Your task to perform on an android device: add a label to a message in the gmail app Image 0: 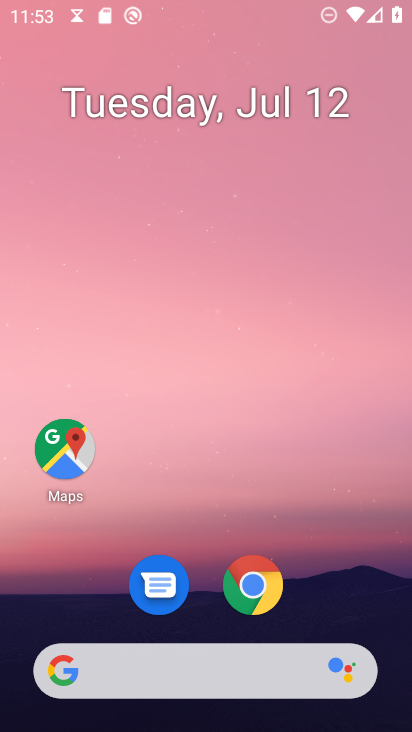
Step 0: press home button
Your task to perform on an android device: add a label to a message in the gmail app Image 1: 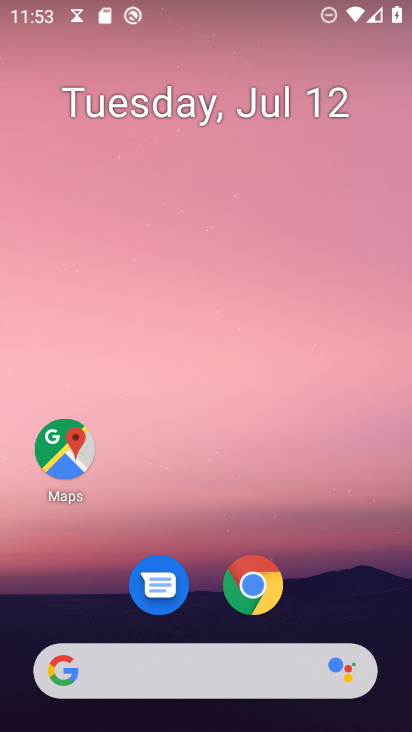
Step 1: drag from (236, 663) to (220, 124)
Your task to perform on an android device: add a label to a message in the gmail app Image 2: 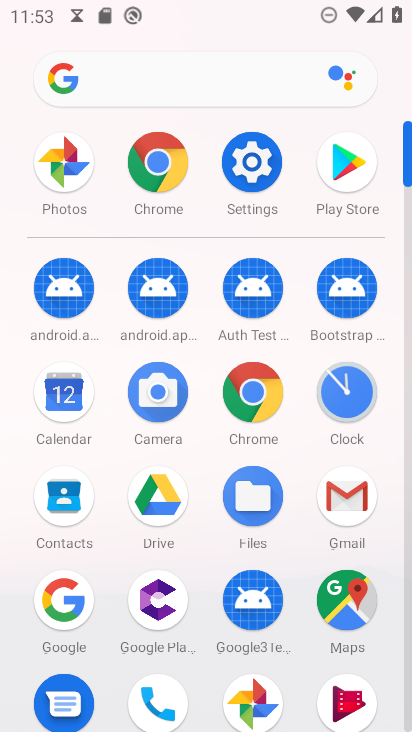
Step 2: click (356, 509)
Your task to perform on an android device: add a label to a message in the gmail app Image 3: 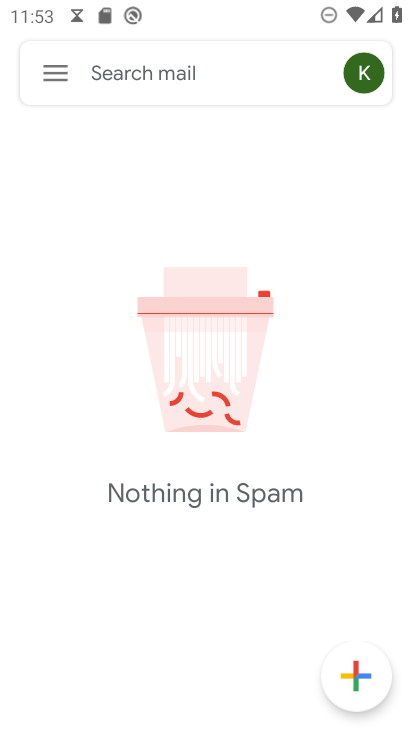
Step 3: click (58, 80)
Your task to perform on an android device: add a label to a message in the gmail app Image 4: 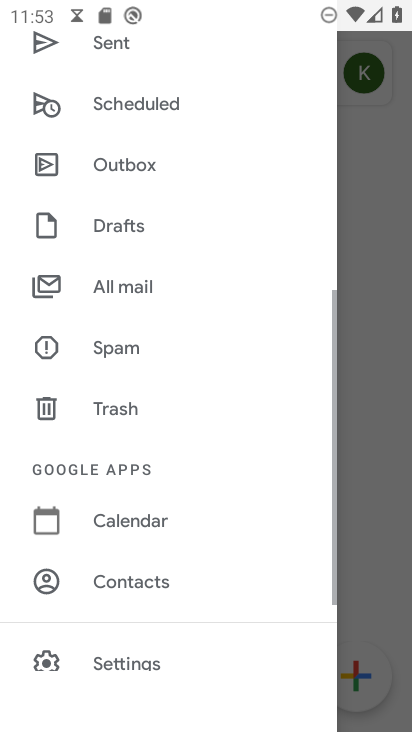
Step 4: drag from (232, 116) to (99, 646)
Your task to perform on an android device: add a label to a message in the gmail app Image 5: 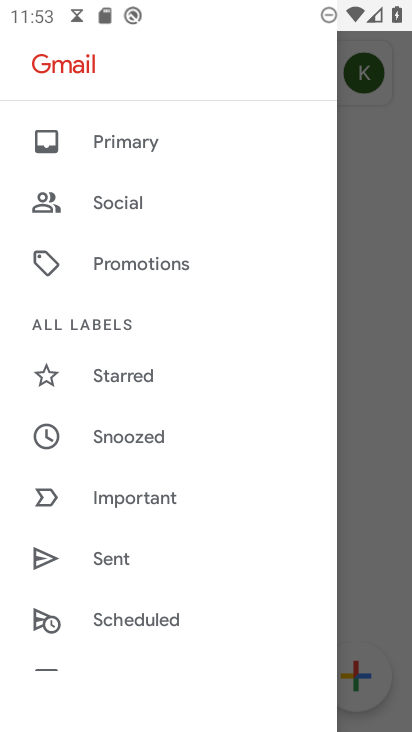
Step 5: drag from (179, 631) to (314, 140)
Your task to perform on an android device: add a label to a message in the gmail app Image 6: 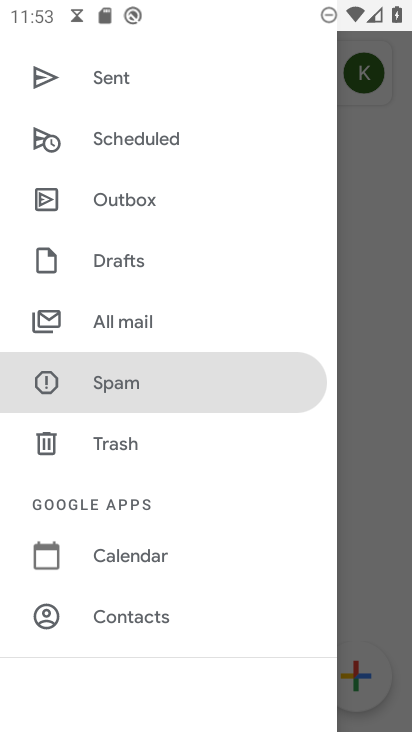
Step 6: click (127, 312)
Your task to perform on an android device: add a label to a message in the gmail app Image 7: 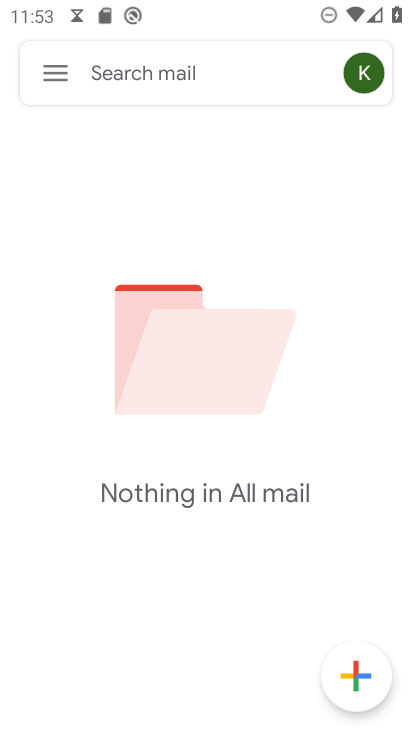
Step 7: task complete